Your task to perform on an android device: Add "dell xps" to the cart on newegg, then select checkout. Image 0: 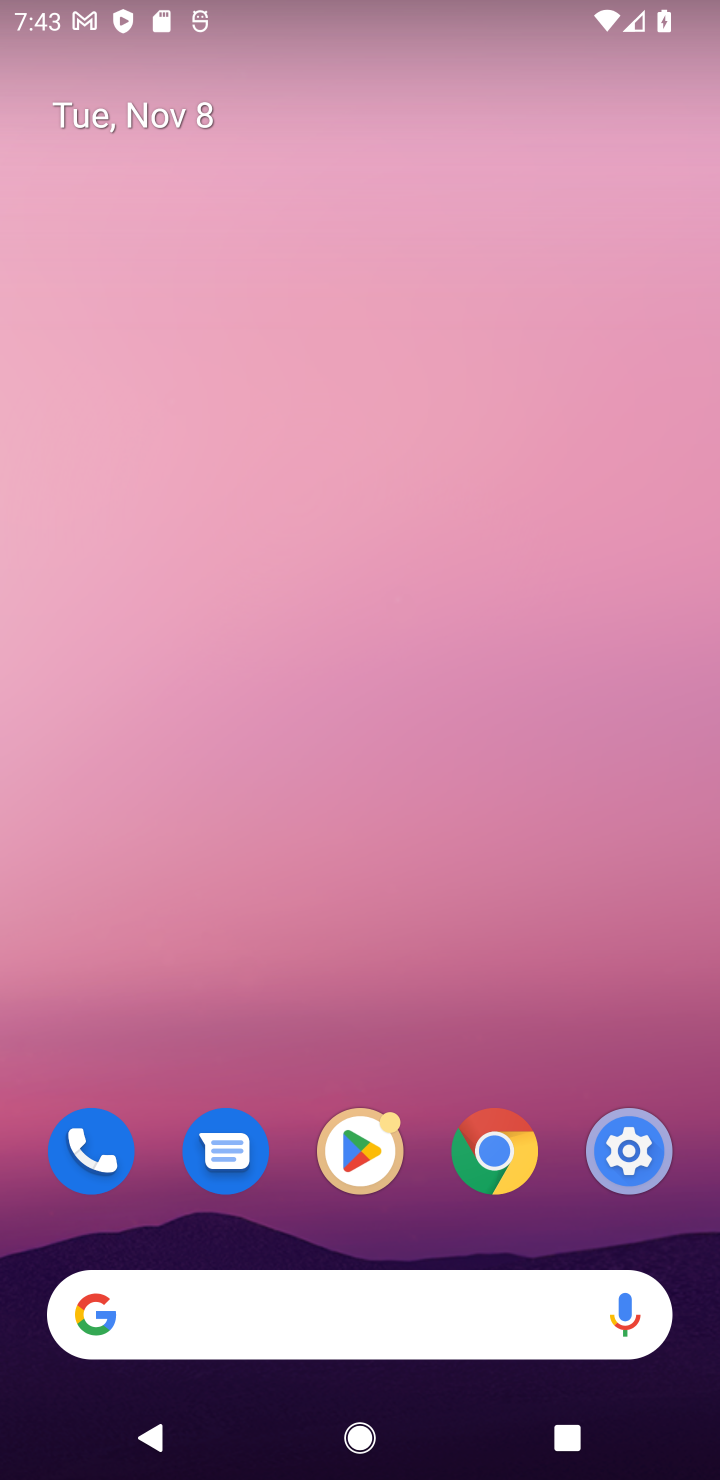
Step 0: click (444, 1280)
Your task to perform on an android device: Add "dell xps" to the cart on newegg, then select checkout. Image 1: 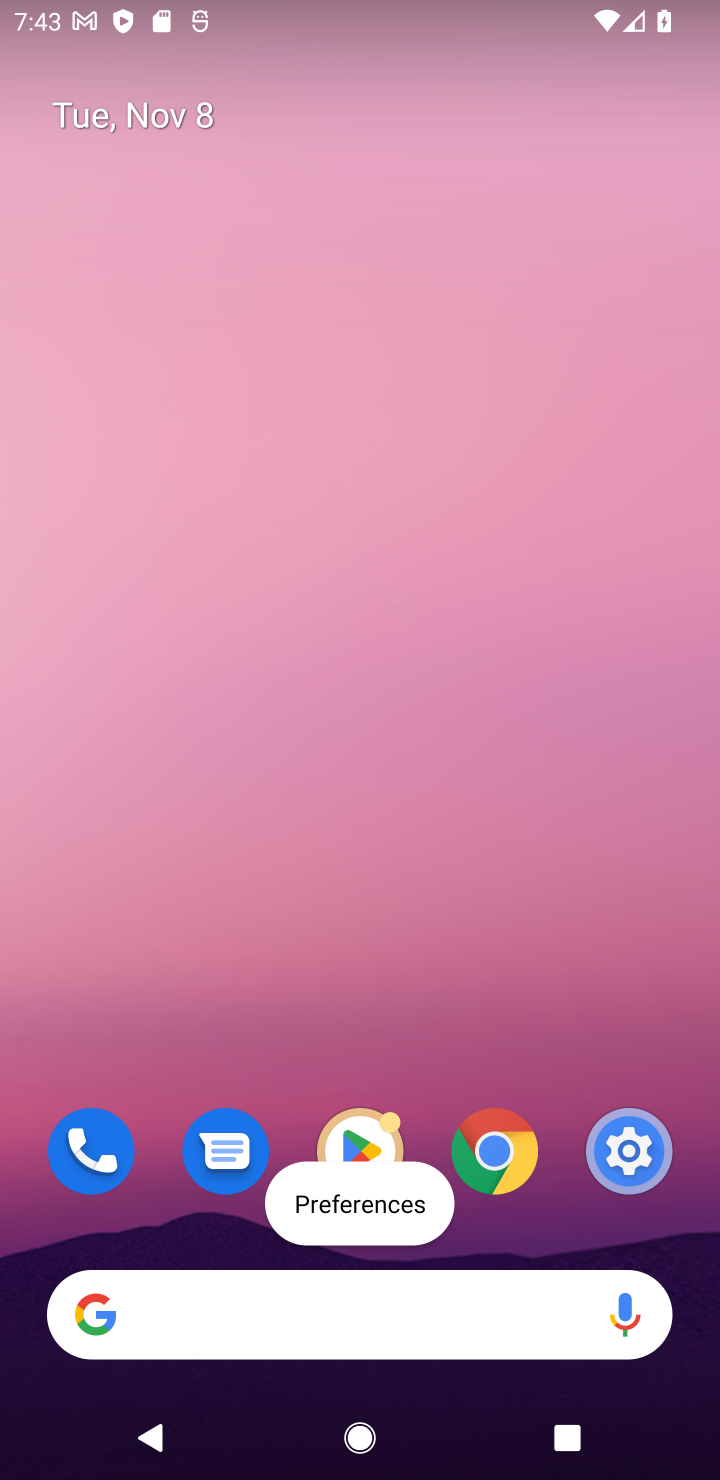
Step 1: click (389, 1316)
Your task to perform on an android device: Add "dell xps" to the cart on newegg, then select checkout. Image 2: 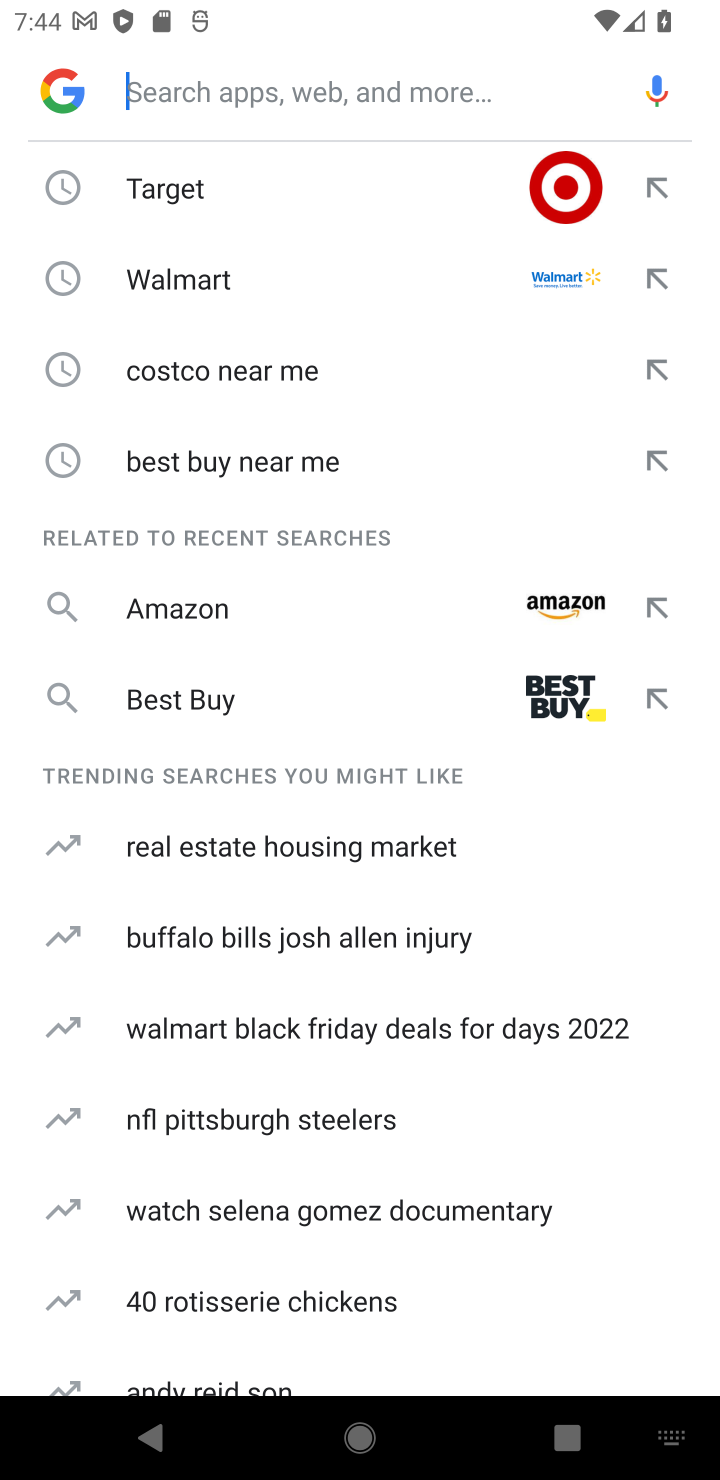
Step 2: type "neweggg"
Your task to perform on an android device: Add "dell xps" to the cart on newegg, then select checkout. Image 3: 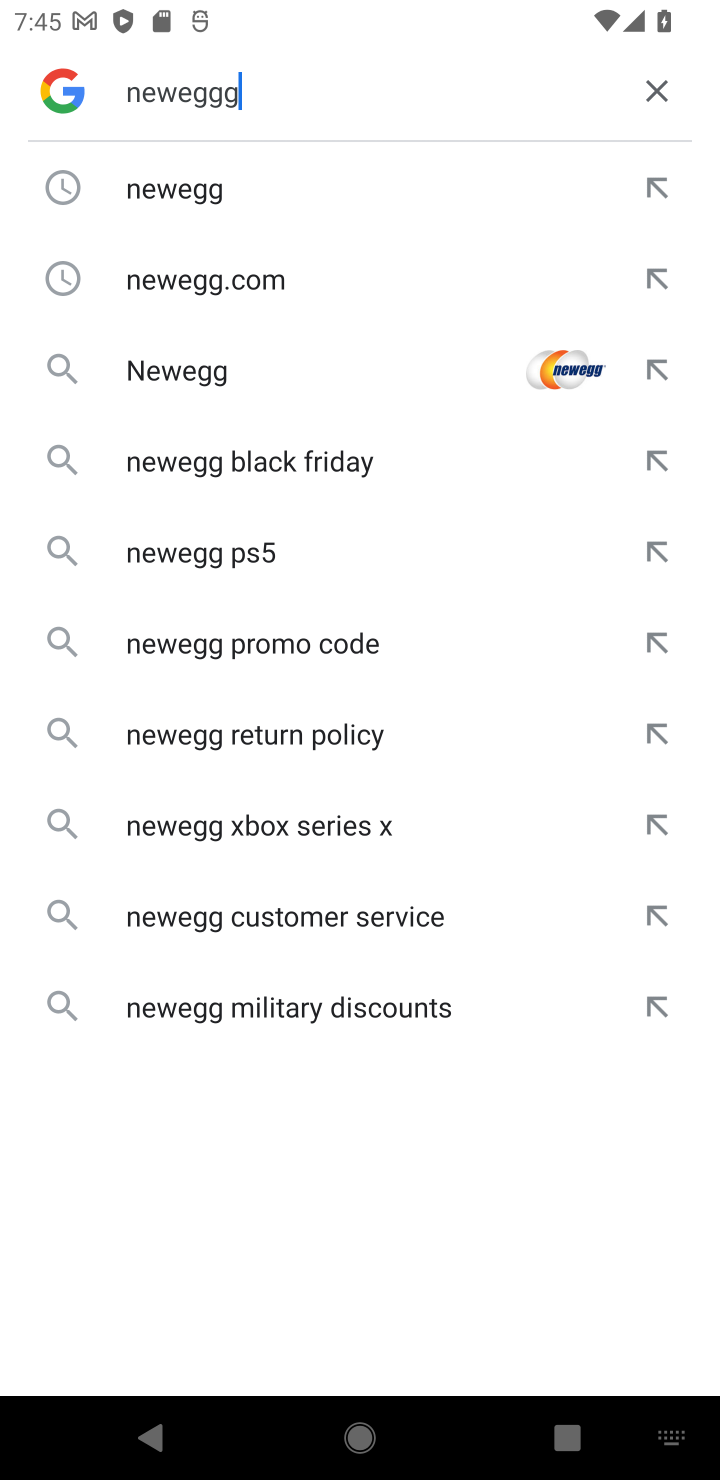
Step 3: click (427, 187)
Your task to perform on an android device: Add "dell xps" to the cart on newegg, then select checkout. Image 4: 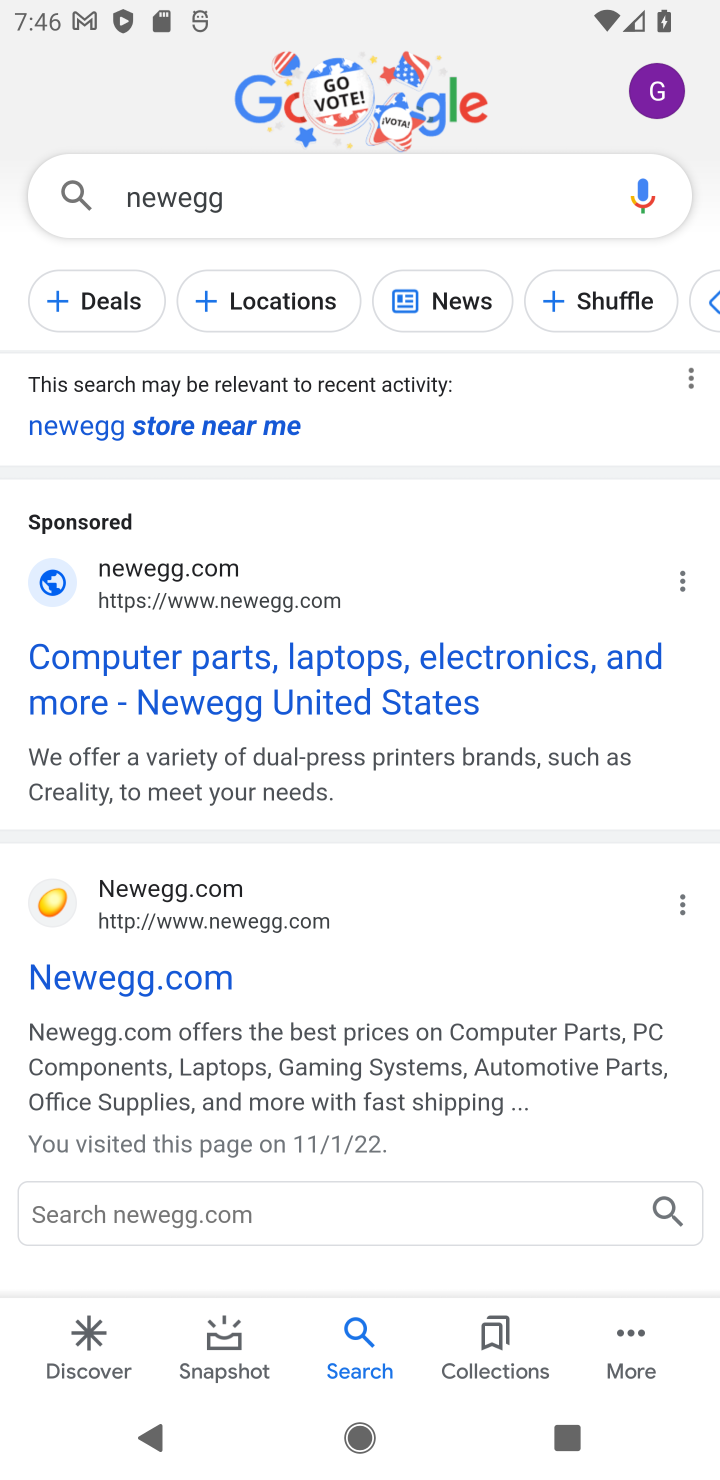
Step 4: task complete